Your task to perform on an android device: turn off picture-in-picture Image 0: 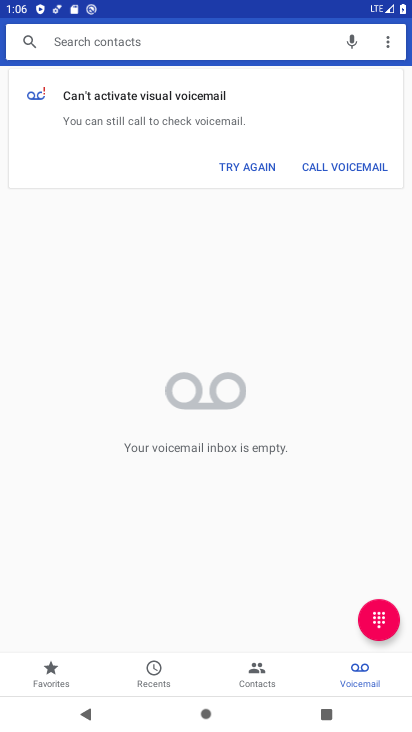
Step 0: press home button
Your task to perform on an android device: turn off picture-in-picture Image 1: 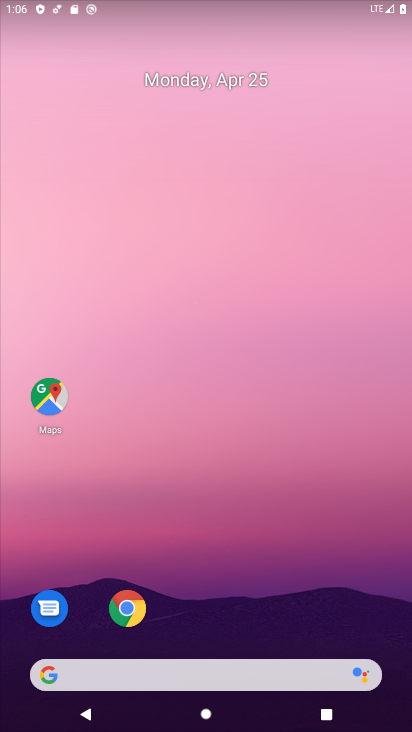
Step 1: click (131, 602)
Your task to perform on an android device: turn off picture-in-picture Image 2: 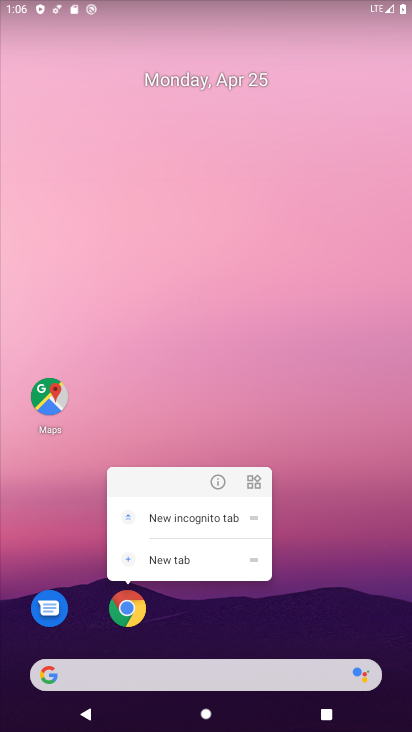
Step 2: click (217, 485)
Your task to perform on an android device: turn off picture-in-picture Image 3: 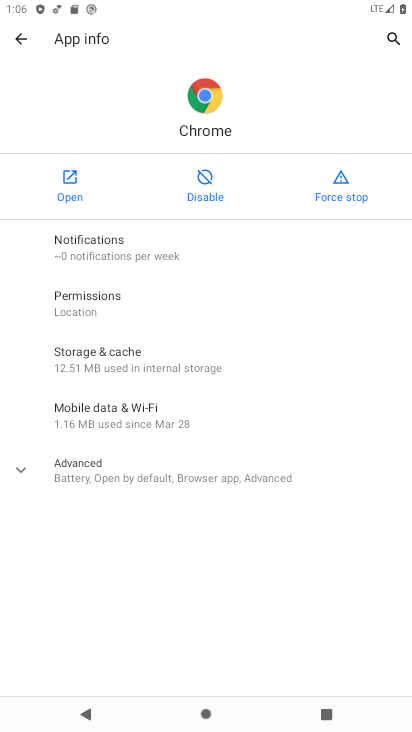
Step 3: click (176, 481)
Your task to perform on an android device: turn off picture-in-picture Image 4: 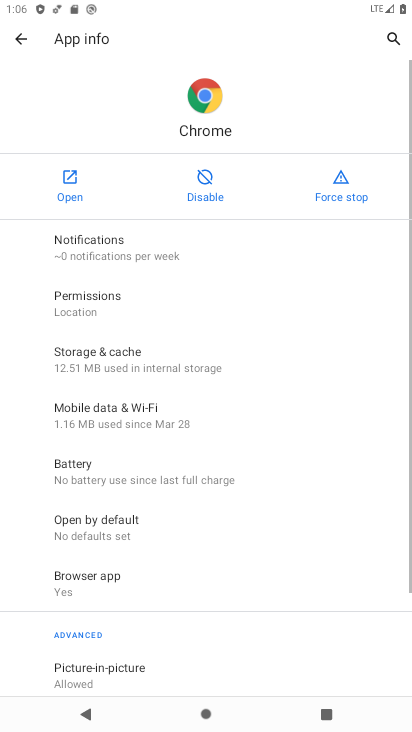
Step 4: drag from (193, 591) to (218, 189)
Your task to perform on an android device: turn off picture-in-picture Image 5: 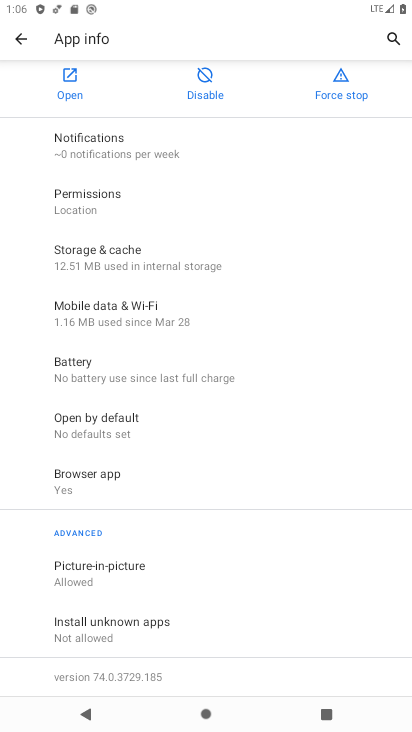
Step 5: click (124, 557)
Your task to perform on an android device: turn off picture-in-picture Image 6: 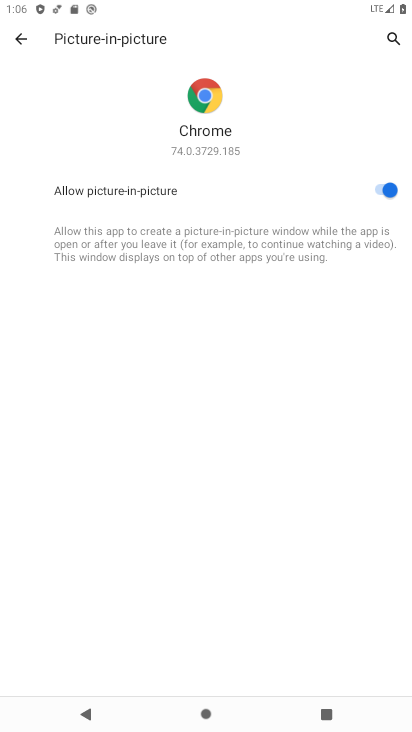
Step 6: click (384, 200)
Your task to perform on an android device: turn off picture-in-picture Image 7: 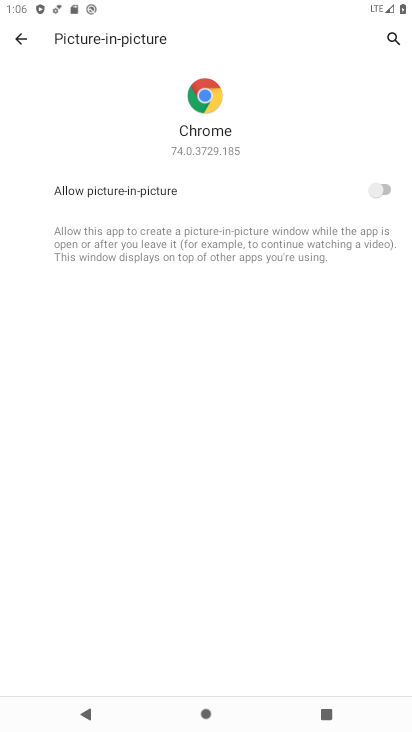
Step 7: task complete